Your task to perform on an android device: turn off javascript in the chrome app Image 0: 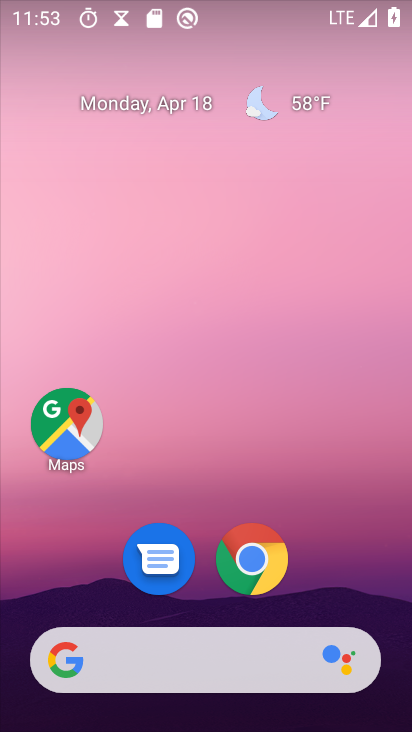
Step 0: click (264, 560)
Your task to perform on an android device: turn off javascript in the chrome app Image 1: 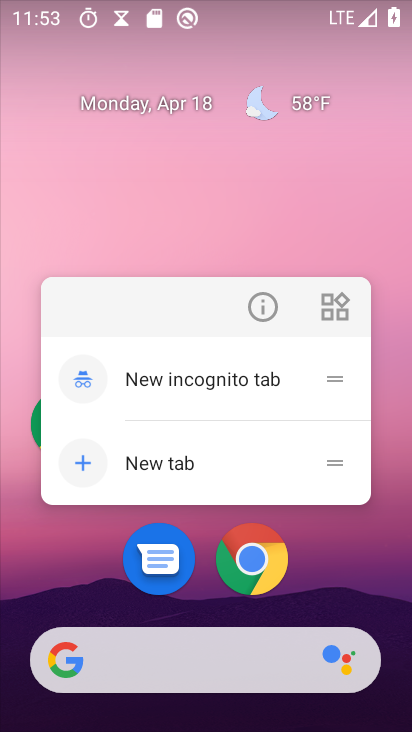
Step 1: click (230, 585)
Your task to perform on an android device: turn off javascript in the chrome app Image 2: 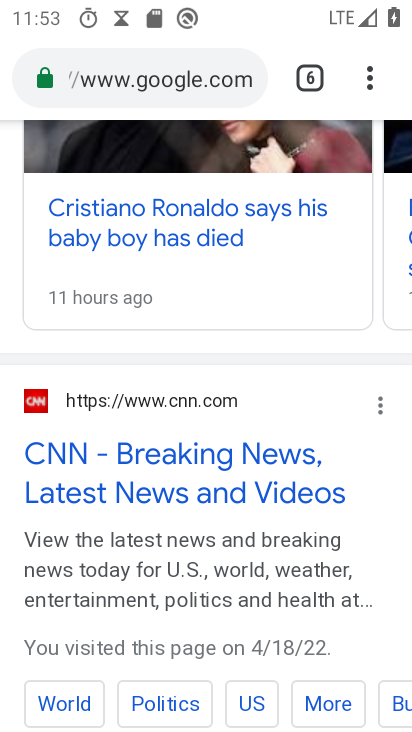
Step 2: drag from (357, 210) to (337, 349)
Your task to perform on an android device: turn off javascript in the chrome app Image 3: 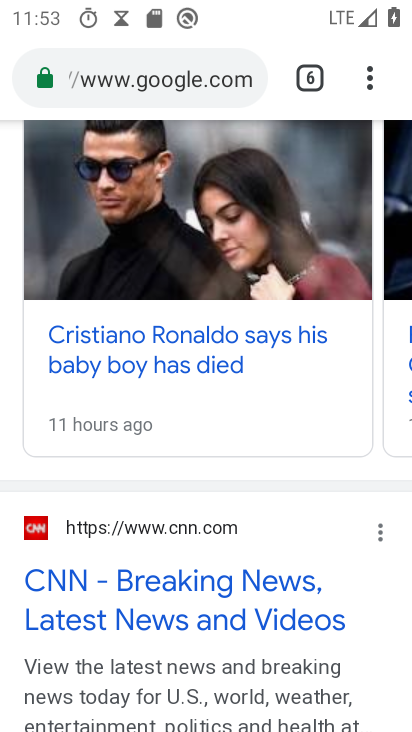
Step 3: click (365, 74)
Your task to perform on an android device: turn off javascript in the chrome app Image 4: 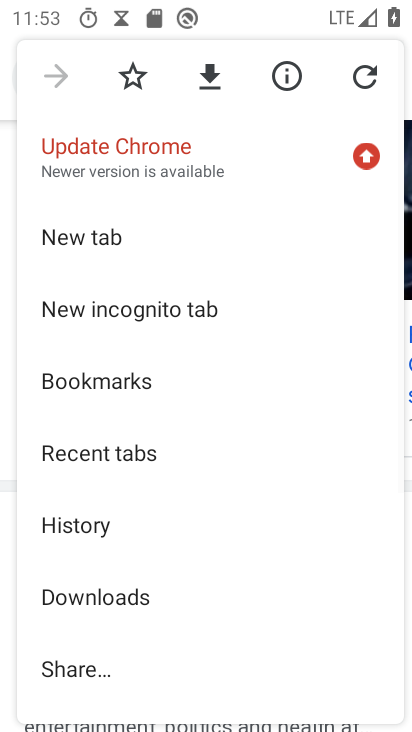
Step 4: drag from (194, 640) to (172, 170)
Your task to perform on an android device: turn off javascript in the chrome app Image 5: 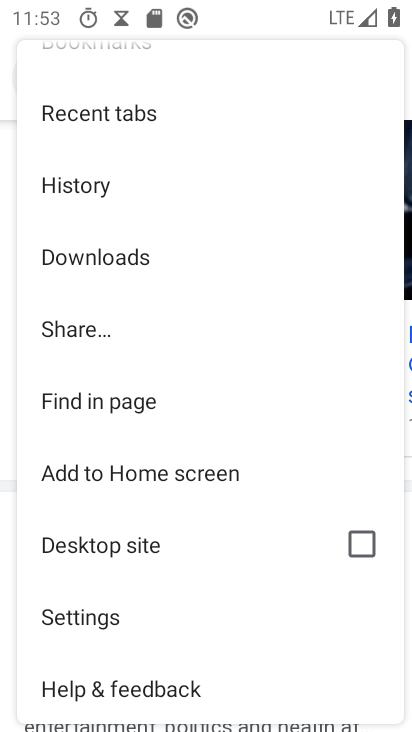
Step 5: click (85, 616)
Your task to perform on an android device: turn off javascript in the chrome app Image 6: 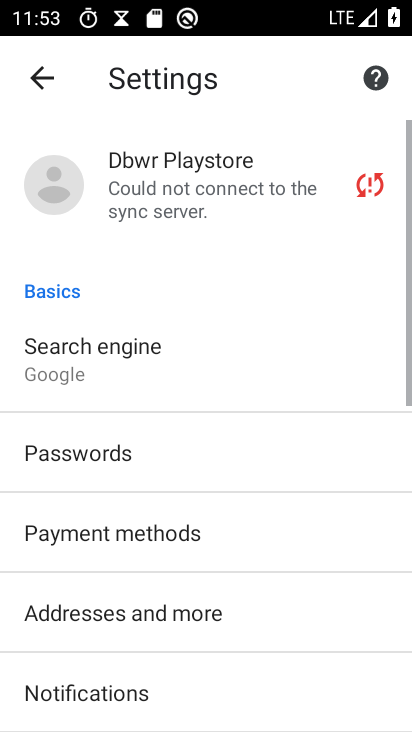
Step 6: drag from (85, 566) to (114, 225)
Your task to perform on an android device: turn off javascript in the chrome app Image 7: 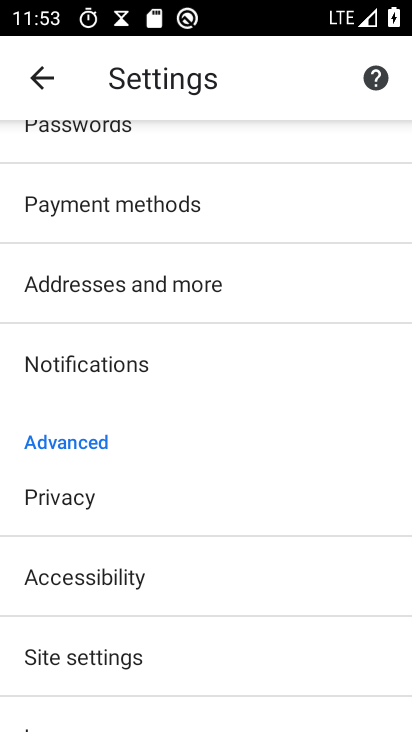
Step 7: click (29, 644)
Your task to perform on an android device: turn off javascript in the chrome app Image 8: 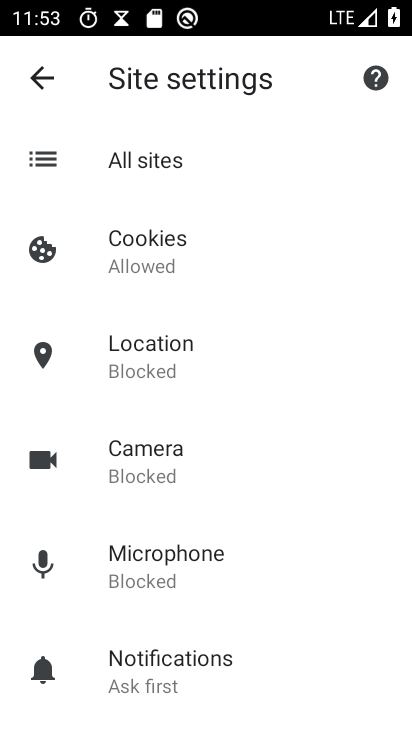
Step 8: drag from (186, 522) to (210, 270)
Your task to perform on an android device: turn off javascript in the chrome app Image 9: 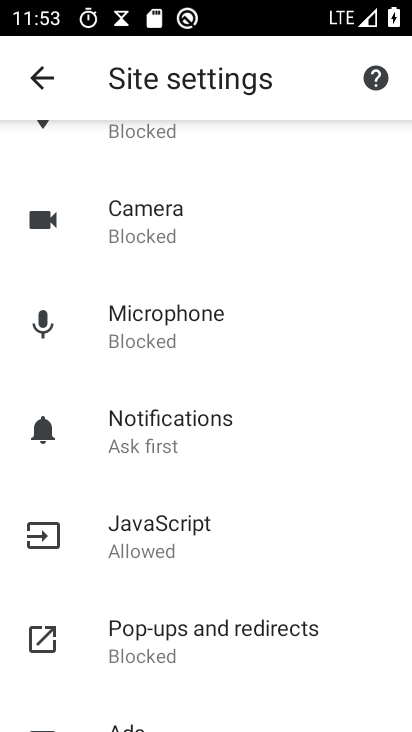
Step 9: click (163, 521)
Your task to perform on an android device: turn off javascript in the chrome app Image 10: 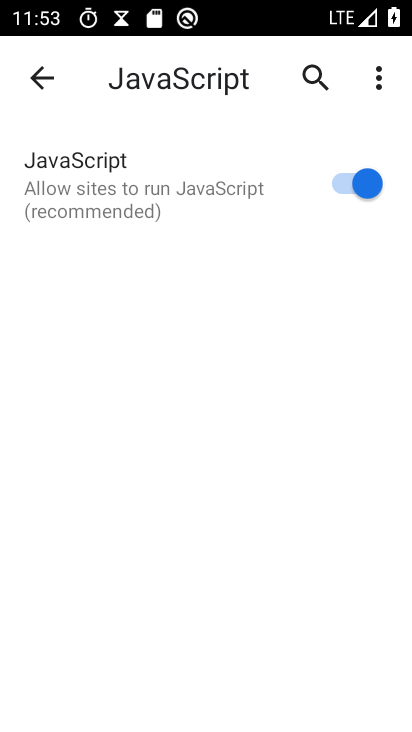
Step 10: click (363, 184)
Your task to perform on an android device: turn off javascript in the chrome app Image 11: 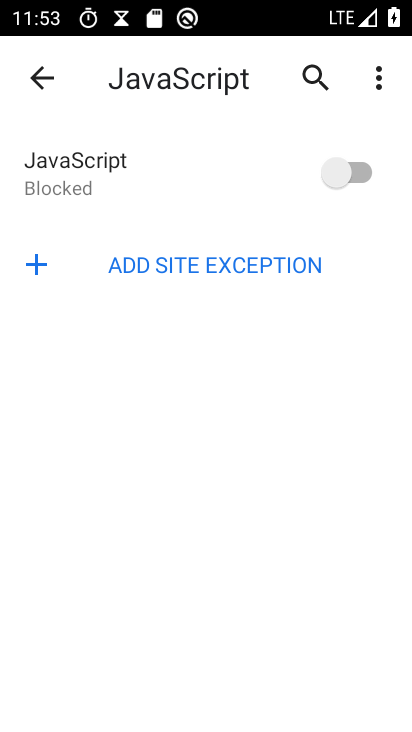
Step 11: task complete